Your task to perform on an android device: Go to internet settings Image 0: 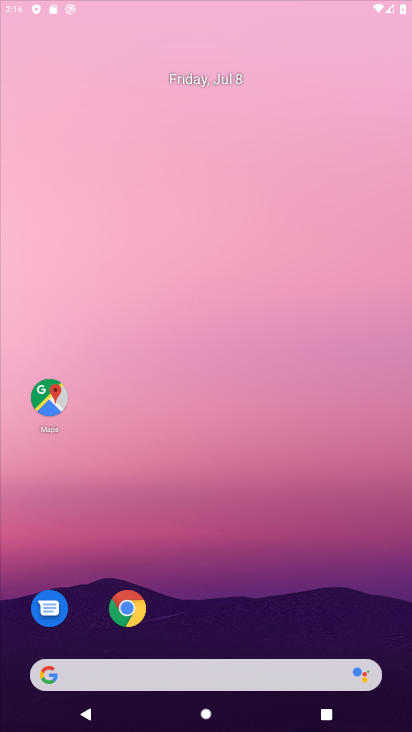
Step 0: drag from (298, 389) to (359, 195)
Your task to perform on an android device: Go to internet settings Image 1: 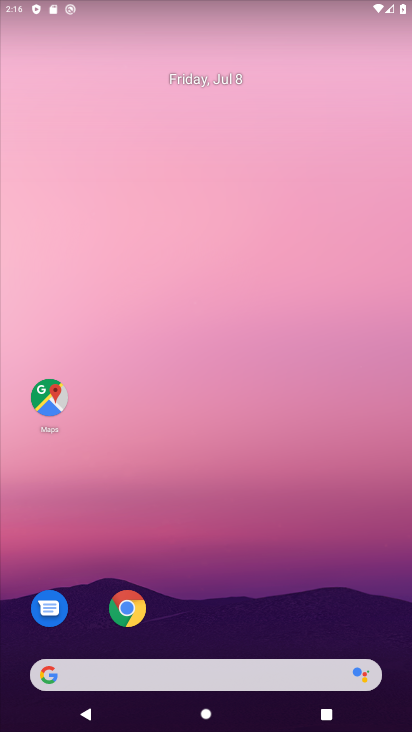
Step 1: drag from (230, 625) to (305, 65)
Your task to perform on an android device: Go to internet settings Image 2: 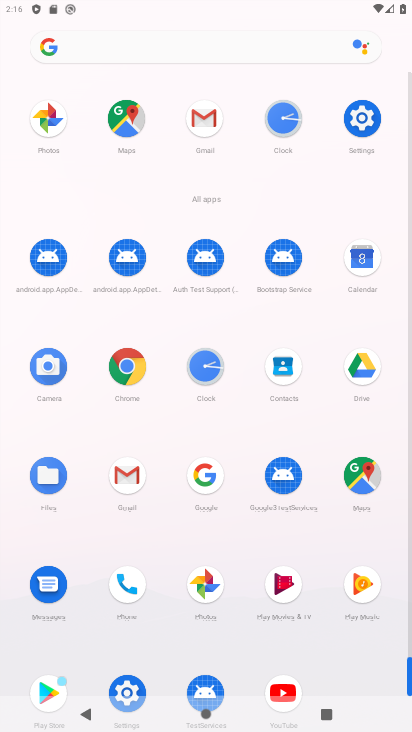
Step 2: click (131, 692)
Your task to perform on an android device: Go to internet settings Image 3: 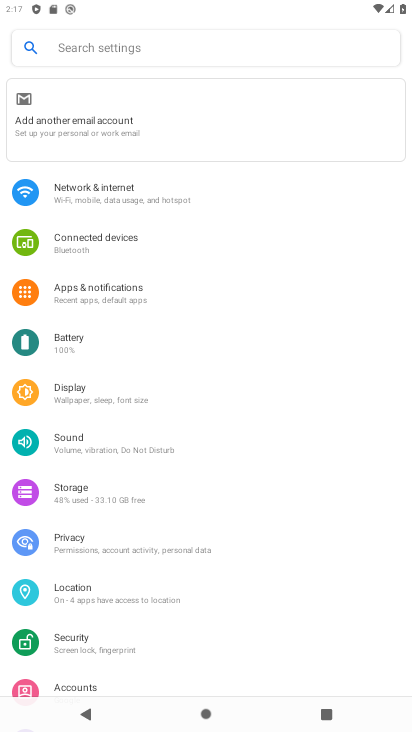
Step 3: click (138, 203)
Your task to perform on an android device: Go to internet settings Image 4: 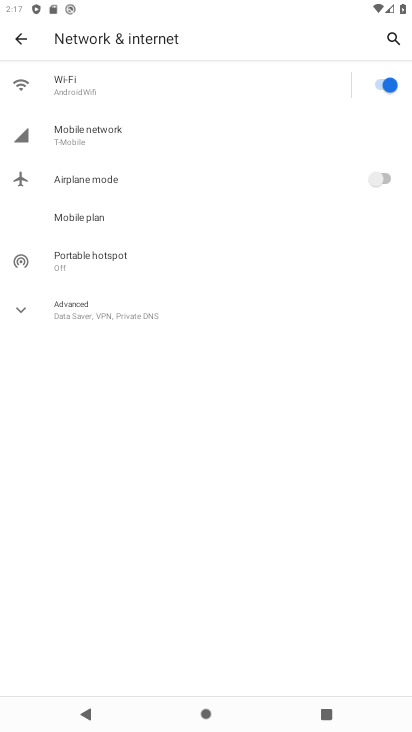
Step 4: click (156, 145)
Your task to perform on an android device: Go to internet settings Image 5: 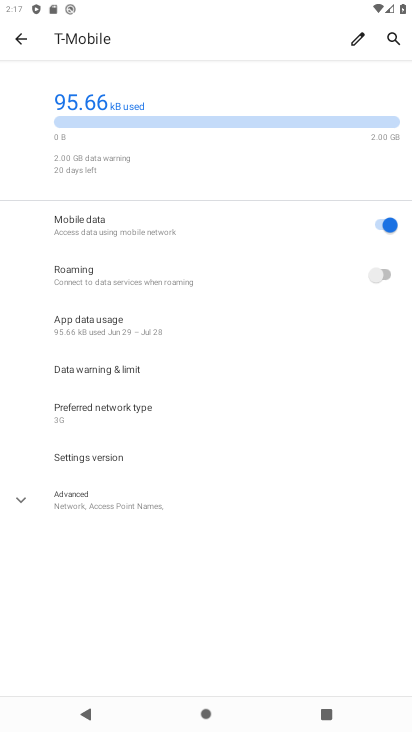
Step 5: task complete